Your task to perform on an android device: Open internet settings Image 0: 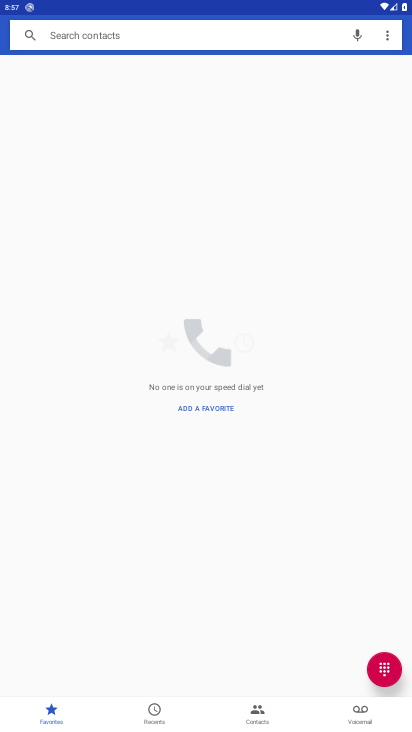
Step 0: click (32, 692)
Your task to perform on an android device: Open internet settings Image 1: 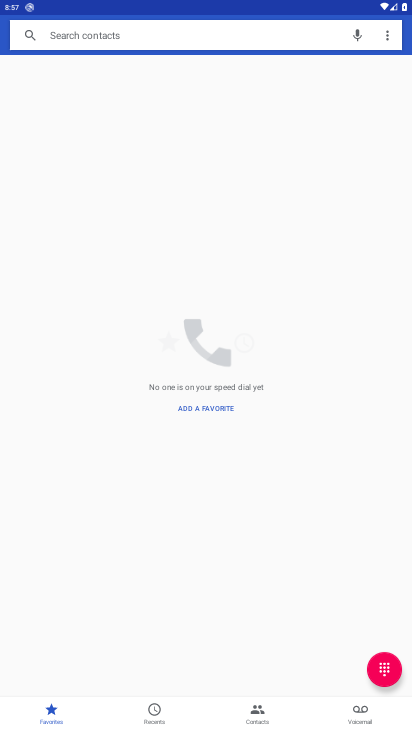
Step 1: press home button
Your task to perform on an android device: Open internet settings Image 2: 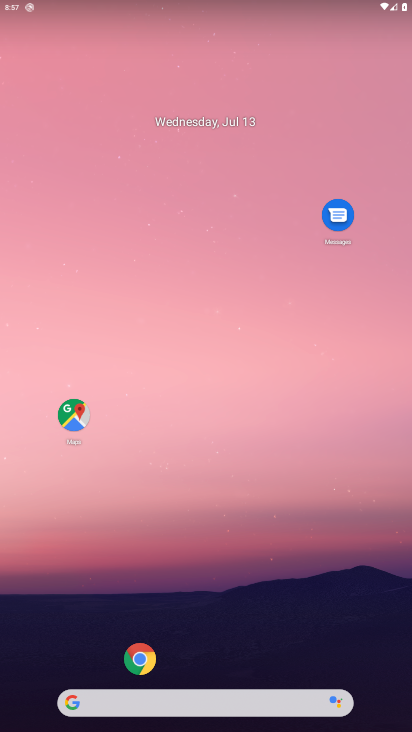
Step 2: drag from (14, 694) to (215, 192)
Your task to perform on an android device: Open internet settings Image 3: 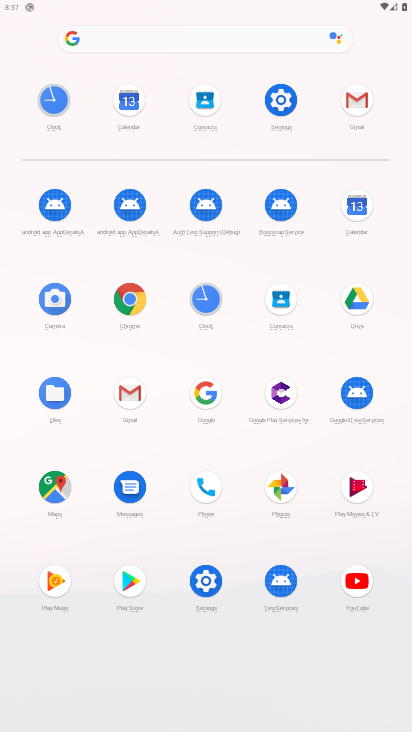
Step 3: click (198, 581)
Your task to perform on an android device: Open internet settings Image 4: 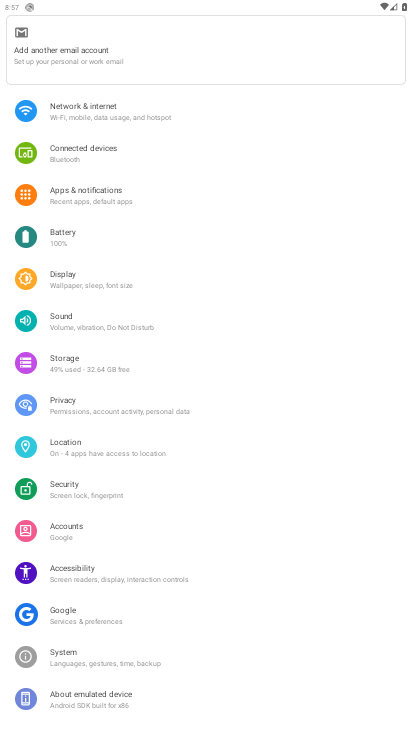
Step 4: click (140, 114)
Your task to perform on an android device: Open internet settings Image 5: 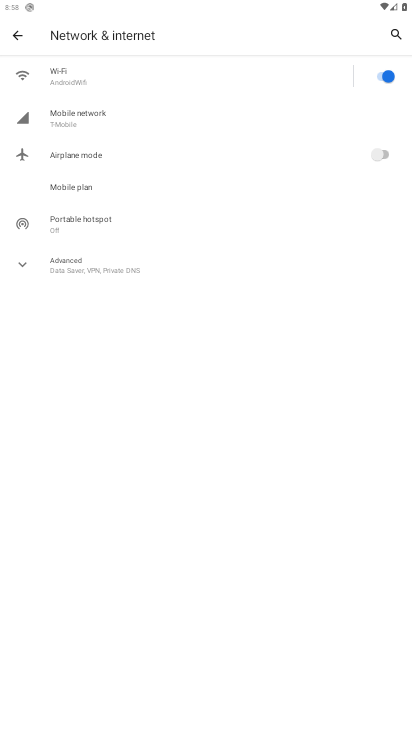
Step 5: task complete